Your task to perform on an android device: Open calendar and show me the fourth week of next month Image 0: 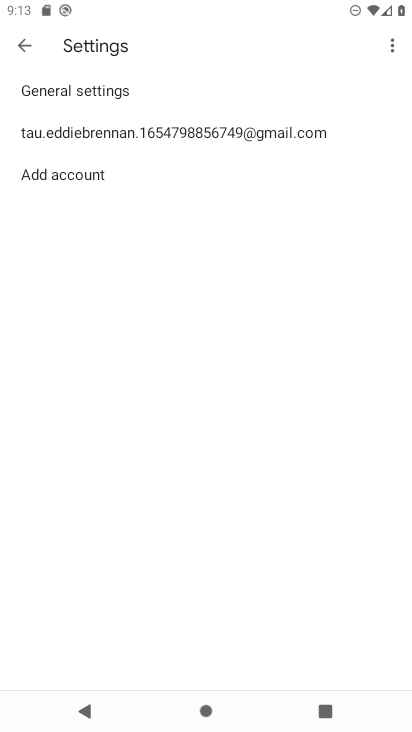
Step 0: press home button
Your task to perform on an android device: Open calendar and show me the fourth week of next month Image 1: 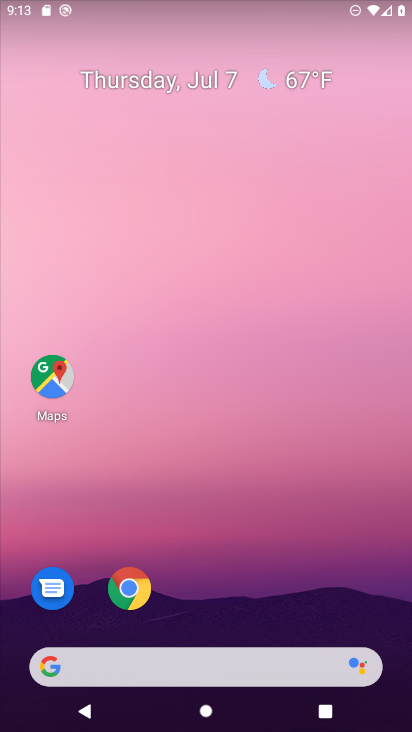
Step 1: drag from (249, 606) to (178, 135)
Your task to perform on an android device: Open calendar and show me the fourth week of next month Image 2: 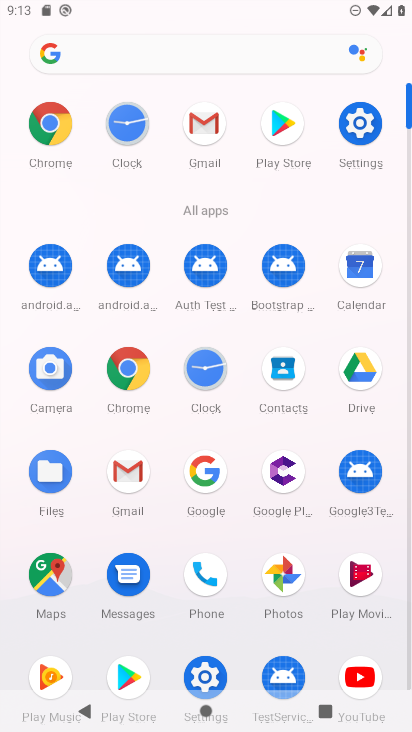
Step 2: click (364, 266)
Your task to perform on an android device: Open calendar and show me the fourth week of next month Image 3: 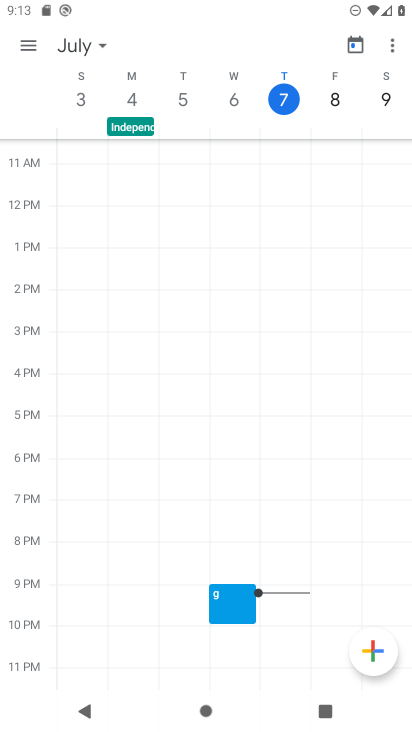
Step 3: click (358, 45)
Your task to perform on an android device: Open calendar and show me the fourth week of next month Image 4: 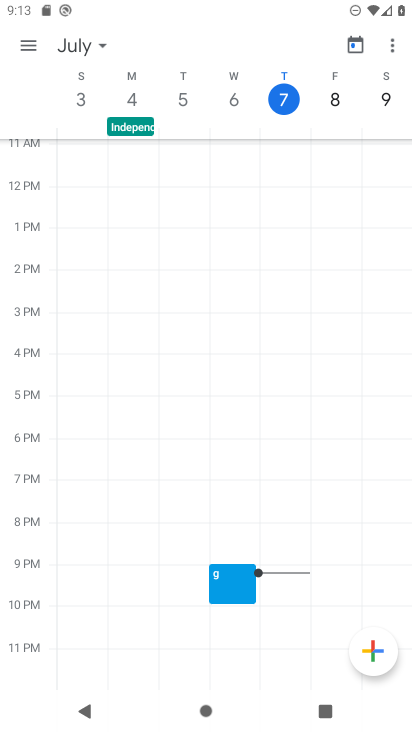
Step 4: click (107, 46)
Your task to perform on an android device: Open calendar and show me the fourth week of next month Image 5: 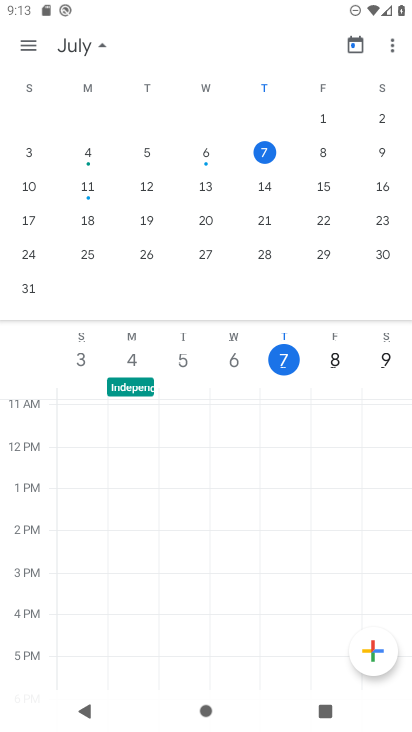
Step 5: drag from (358, 234) to (24, 274)
Your task to perform on an android device: Open calendar and show me the fourth week of next month Image 6: 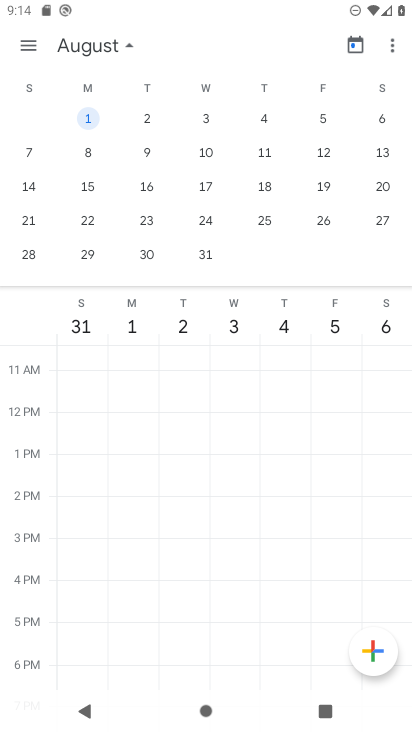
Step 6: click (92, 218)
Your task to perform on an android device: Open calendar and show me the fourth week of next month Image 7: 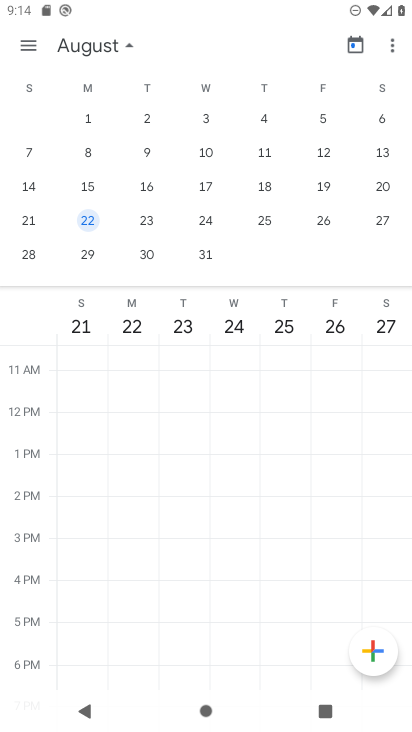
Step 7: click (34, 43)
Your task to perform on an android device: Open calendar and show me the fourth week of next month Image 8: 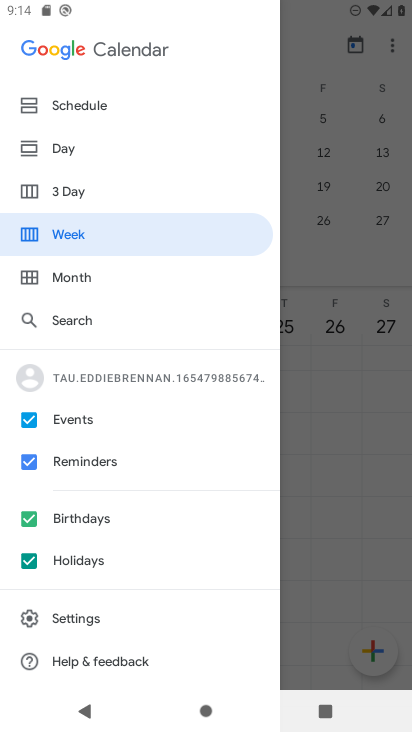
Step 8: click (103, 217)
Your task to perform on an android device: Open calendar and show me the fourth week of next month Image 9: 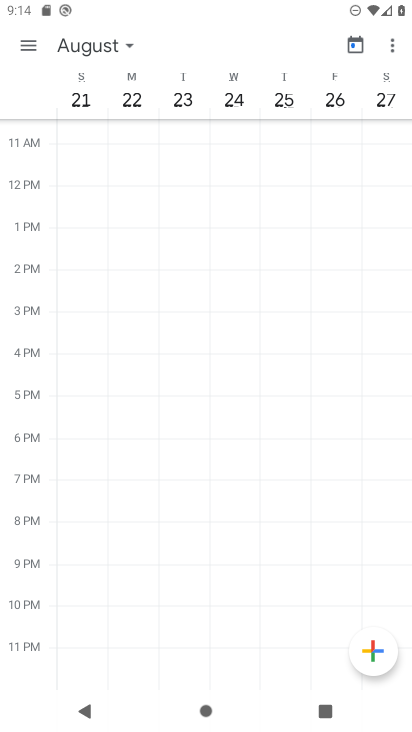
Step 9: task complete